Your task to perform on an android device: change notification settings in the gmail app Image 0: 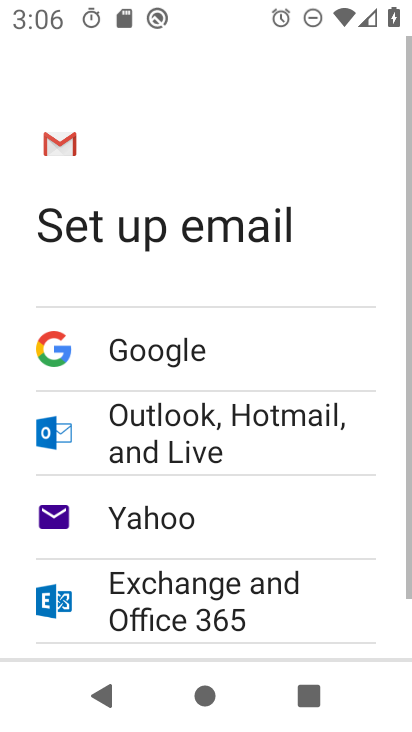
Step 0: press home button
Your task to perform on an android device: change notification settings in the gmail app Image 1: 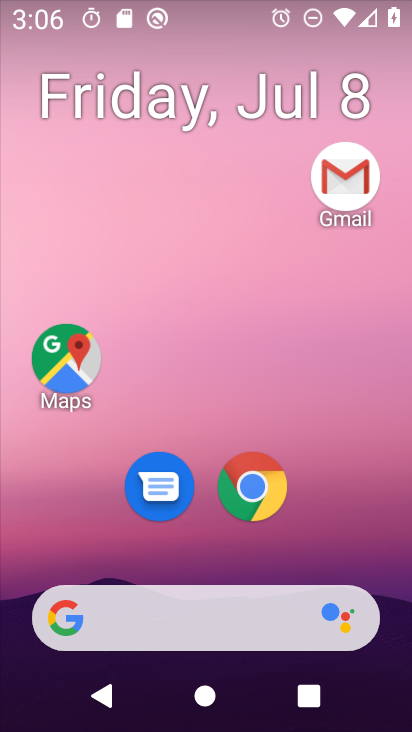
Step 1: drag from (341, 515) to (355, 117)
Your task to perform on an android device: change notification settings in the gmail app Image 2: 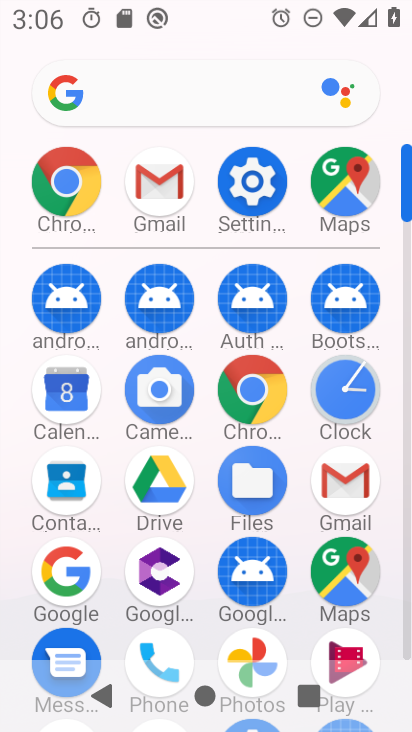
Step 2: click (350, 485)
Your task to perform on an android device: change notification settings in the gmail app Image 3: 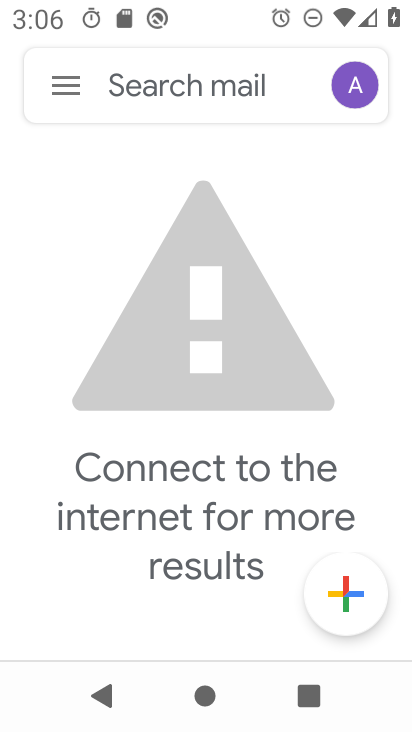
Step 3: click (58, 84)
Your task to perform on an android device: change notification settings in the gmail app Image 4: 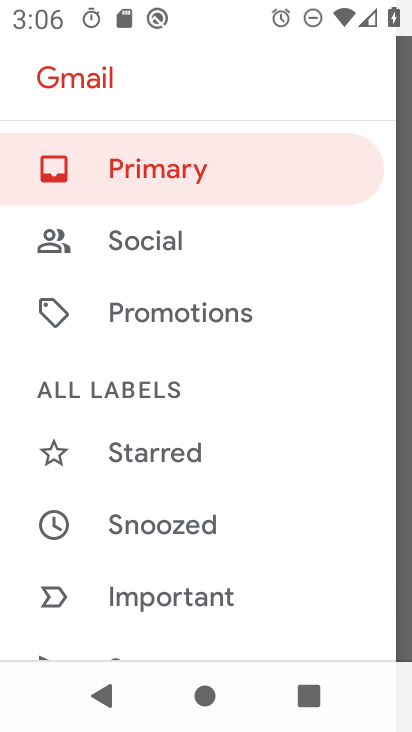
Step 4: drag from (320, 526) to (321, 403)
Your task to perform on an android device: change notification settings in the gmail app Image 5: 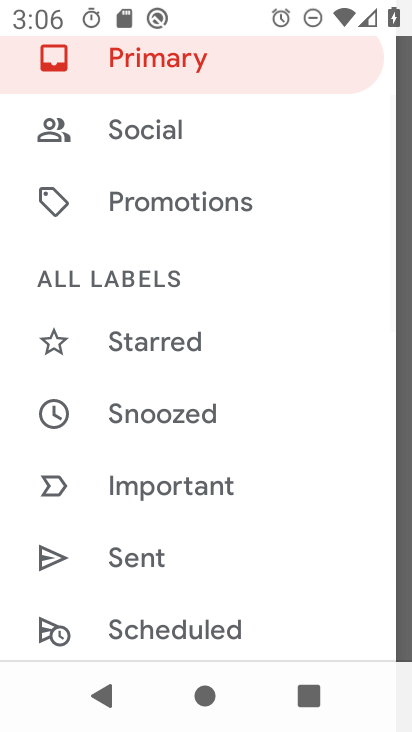
Step 5: drag from (305, 546) to (322, 400)
Your task to perform on an android device: change notification settings in the gmail app Image 6: 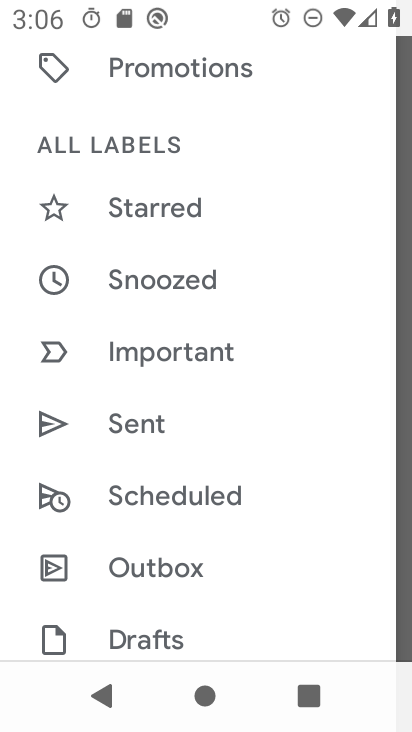
Step 6: drag from (325, 562) to (321, 418)
Your task to perform on an android device: change notification settings in the gmail app Image 7: 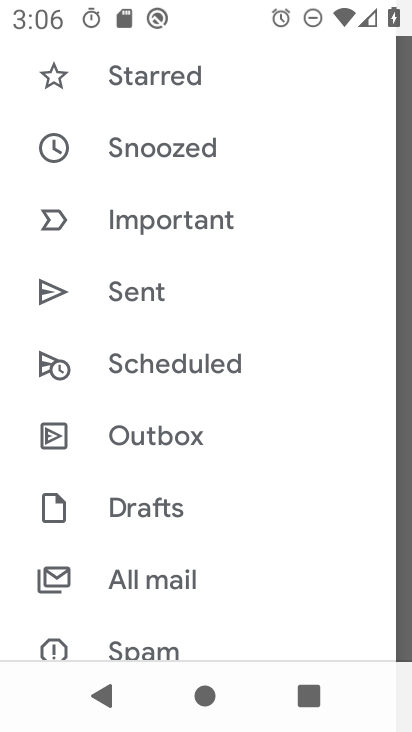
Step 7: drag from (314, 564) to (318, 414)
Your task to perform on an android device: change notification settings in the gmail app Image 8: 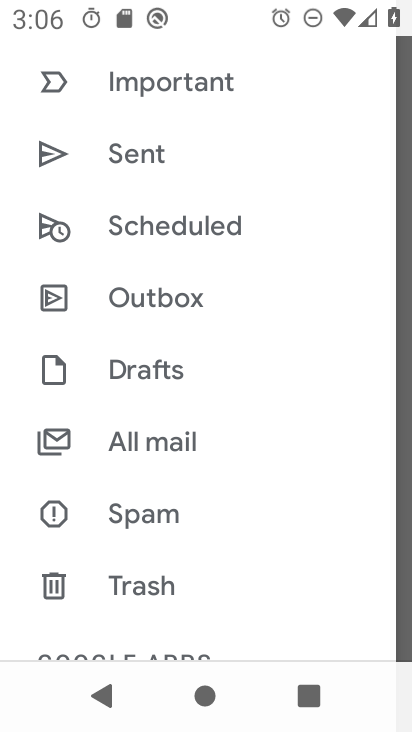
Step 8: drag from (292, 588) to (312, 447)
Your task to perform on an android device: change notification settings in the gmail app Image 9: 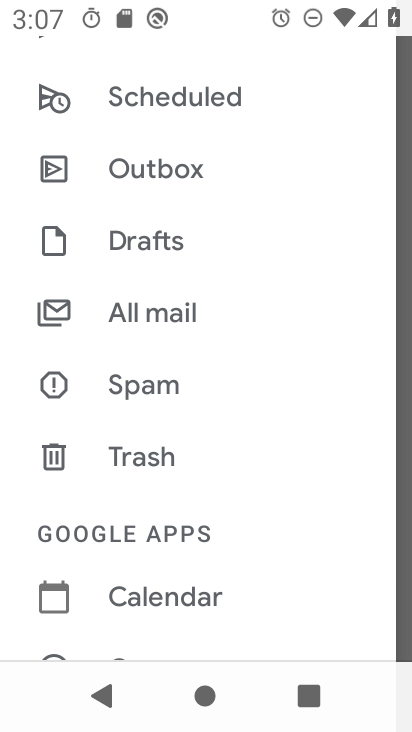
Step 9: drag from (291, 578) to (315, 441)
Your task to perform on an android device: change notification settings in the gmail app Image 10: 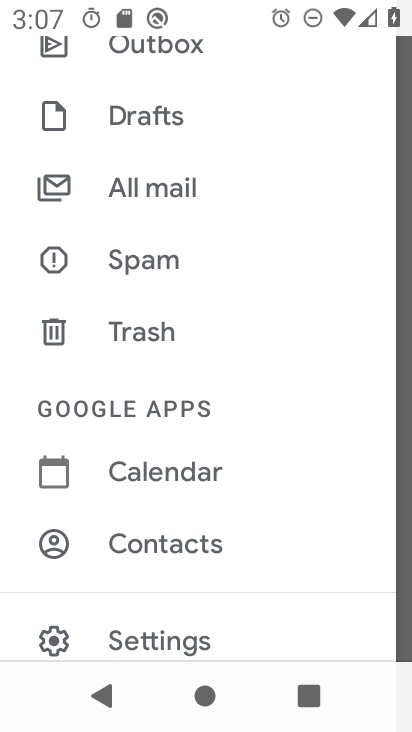
Step 10: drag from (316, 584) to (334, 440)
Your task to perform on an android device: change notification settings in the gmail app Image 11: 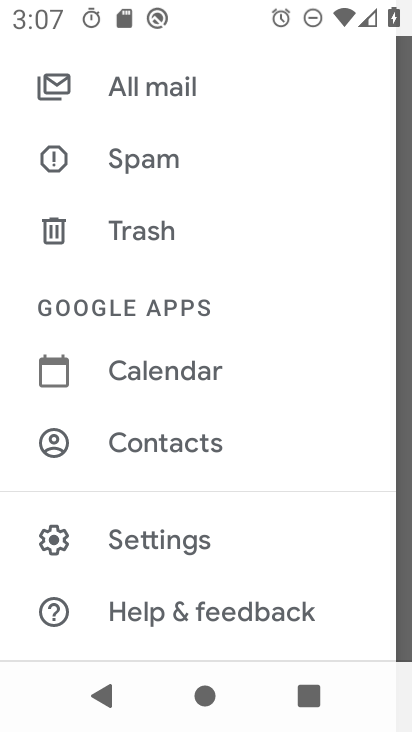
Step 11: click (208, 534)
Your task to perform on an android device: change notification settings in the gmail app Image 12: 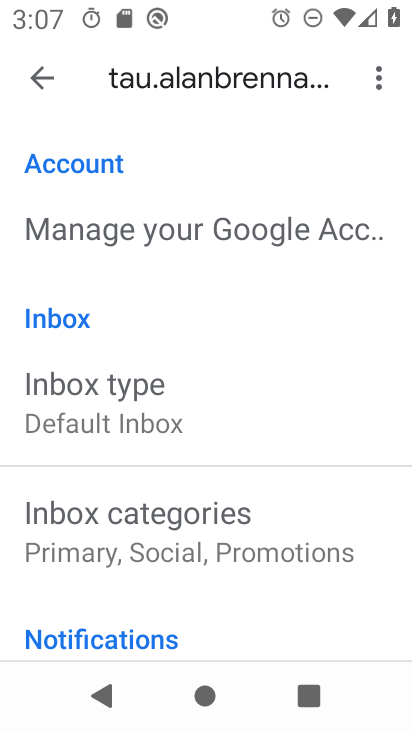
Step 12: drag from (346, 605) to (344, 397)
Your task to perform on an android device: change notification settings in the gmail app Image 13: 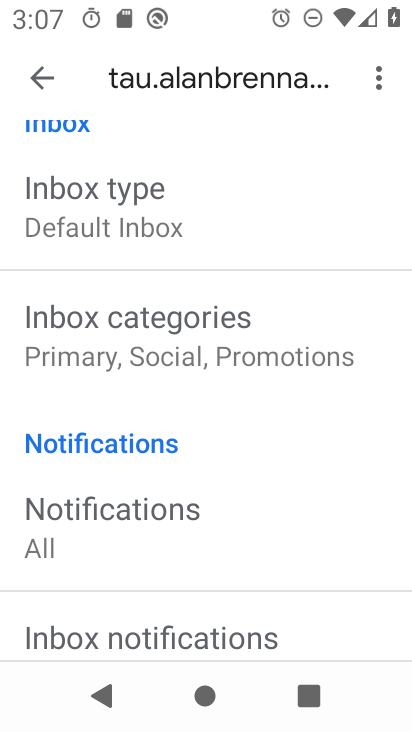
Step 13: drag from (325, 541) to (354, 308)
Your task to perform on an android device: change notification settings in the gmail app Image 14: 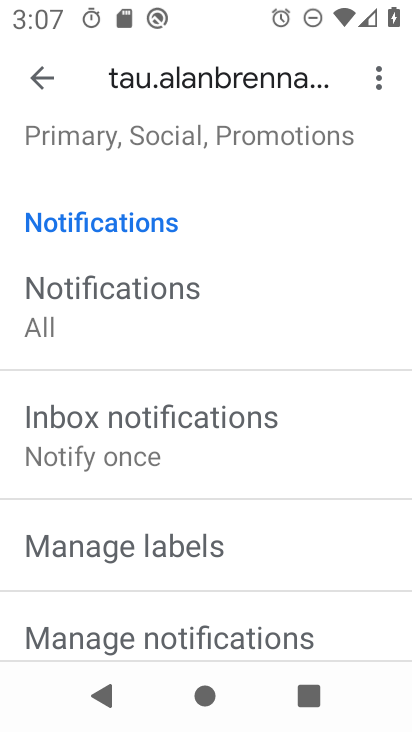
Step 14: drag from (325, 545) to (360, 339)
Your task to perform on an android device: change notification settings in the gmail app Image 15: 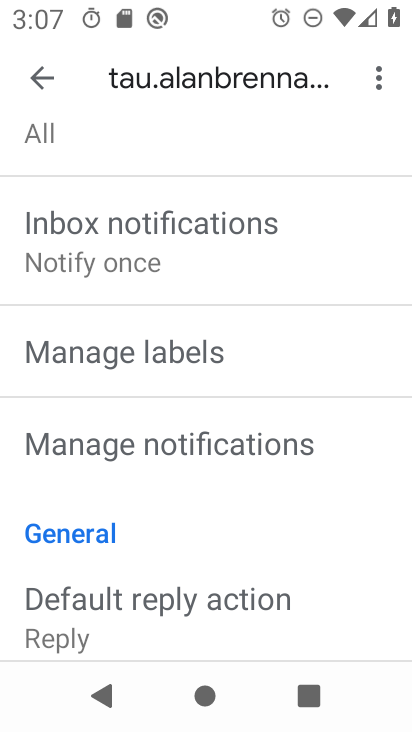
Step 15: drag from (343, 237) to (344, 413)
Your task to perform on an android device: change notification settings in the gmail app Image 16: 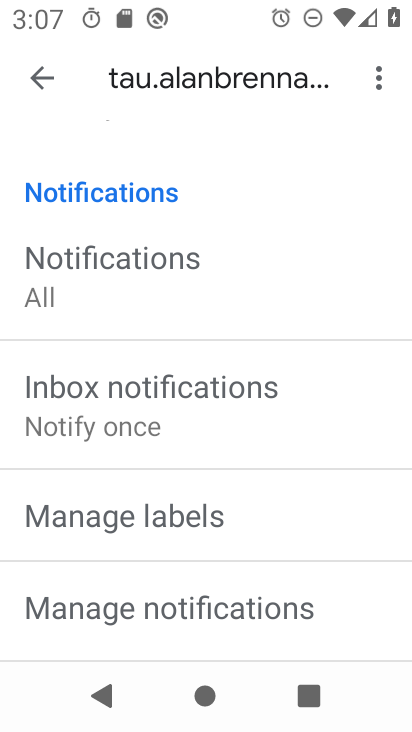
Step 16: drag from (326, 510) to (328, 333)
Your task to perform on an android device: change notification settings in the gmail app Image 17: 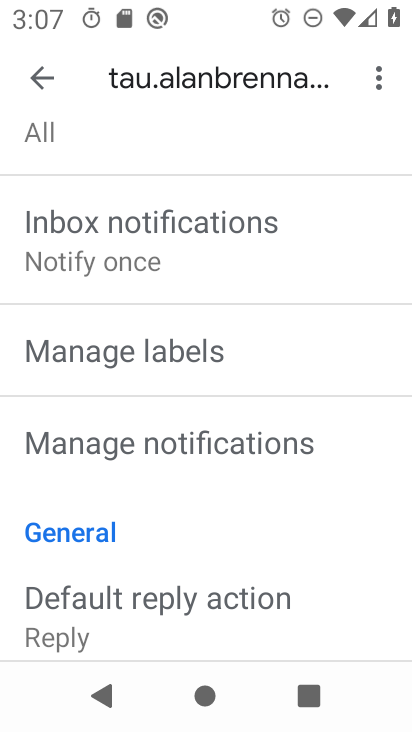
Step 17: click (286, 453)
Your task to perform on an android device: change notification settings in the gmail app Image 18: 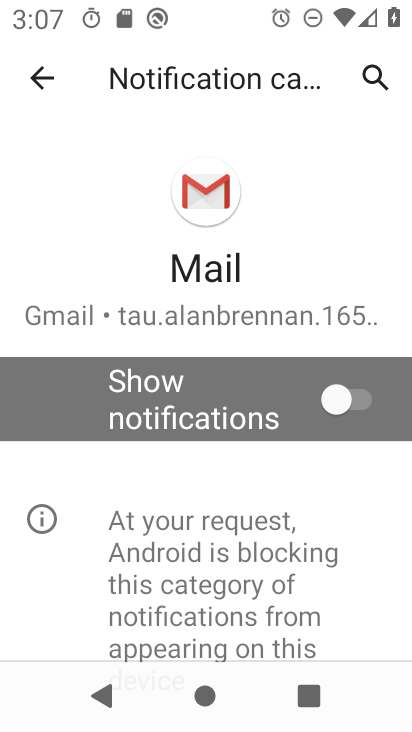
Step 18: click (329, 393)
Your task to perform on an android device: change notification settings in the gmail app Image 19: 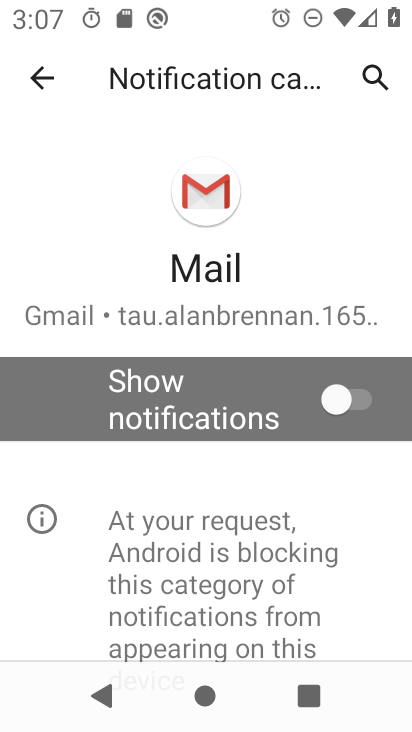
Step 19: task complete